Your task to perform on an android device: What's the news in Trinidad and Tobago? Image 0: 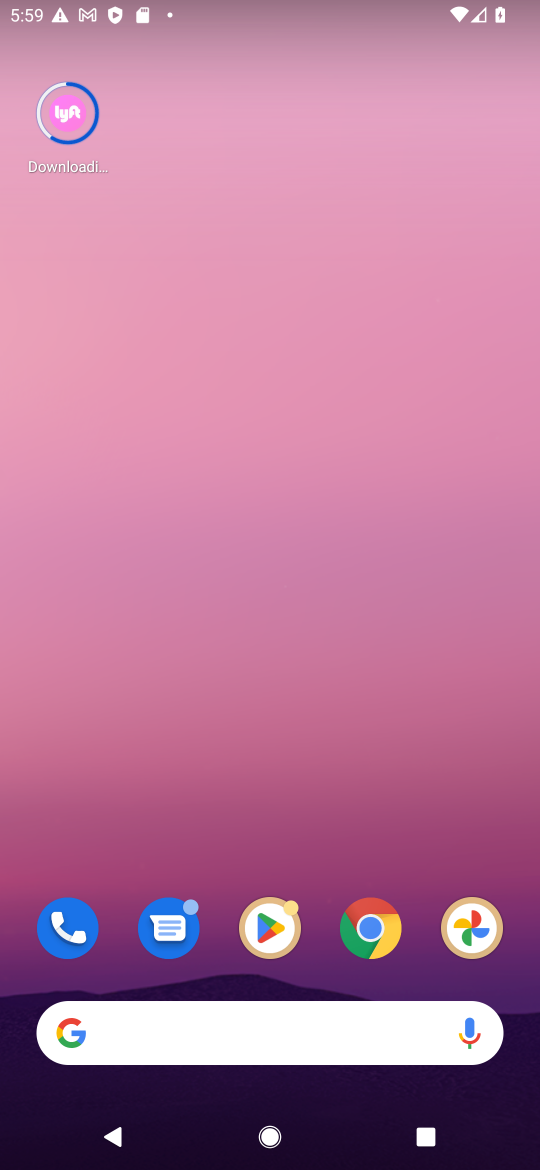
Step 0: drag from (344, 989) to (347, 326)
Your task to perform on an android device: What's the news in Trinidad and Tobago? Image 1: 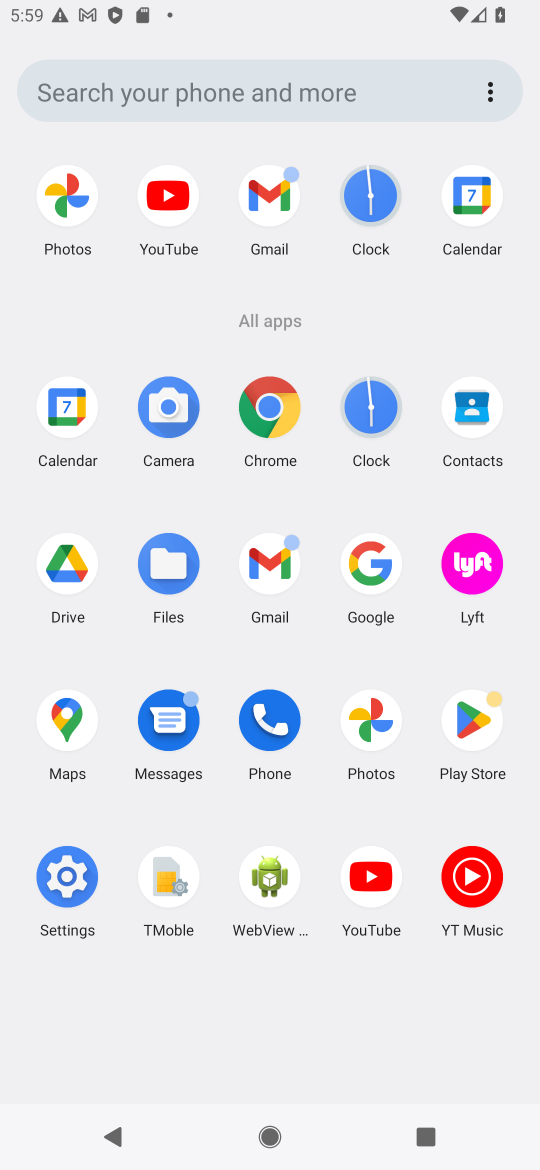
Step 1: click (471, 724)
Your task to perform on an android device: What's the news in Trinidad and Tobago? Image 2: 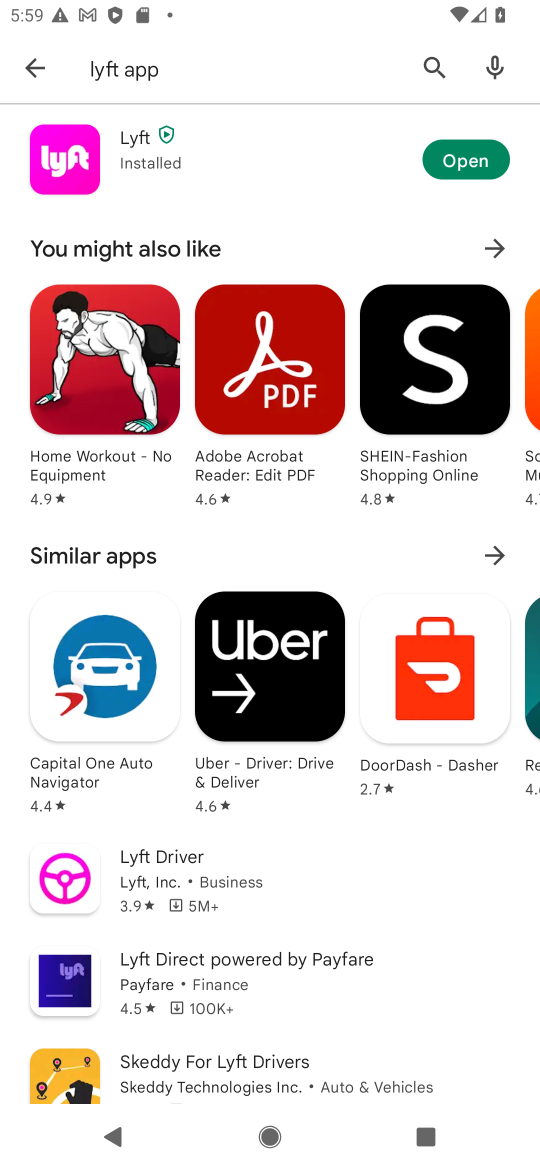
Step 2: click (26, 70)
Your task to perform on an android device: What's the news in Trinidad and Tobago? Image 3: 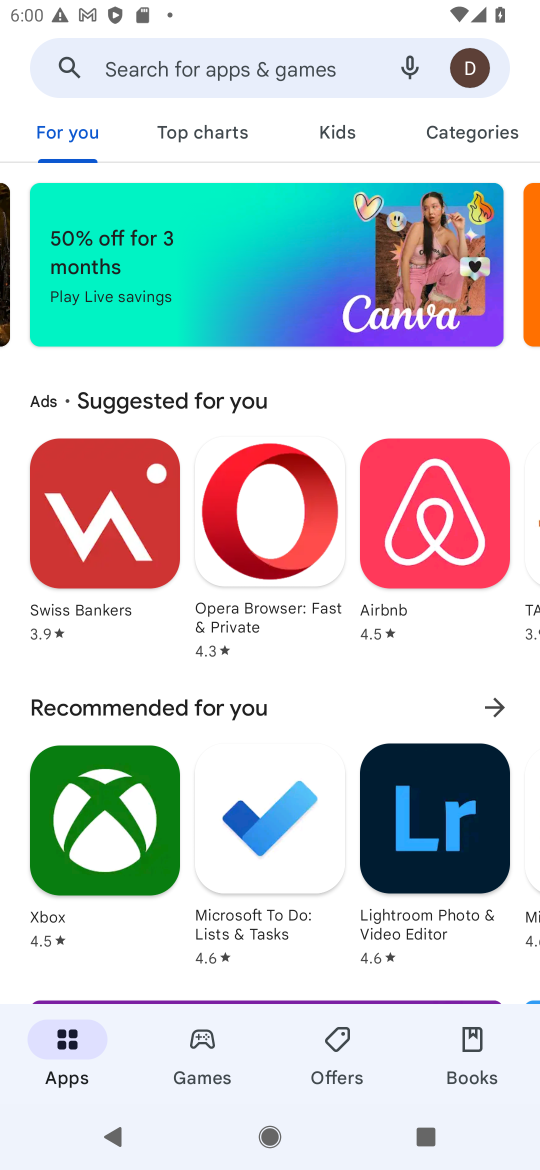
Step 3: click (227, 72)
Your task to perform on an android device: What's the news in Trinidad and Tobago? Image 4: 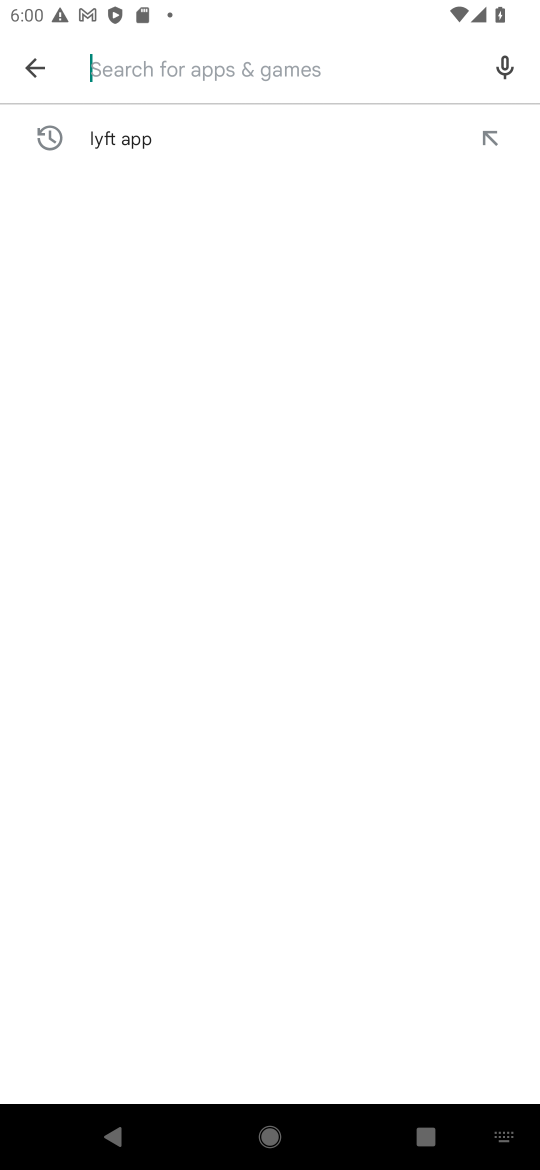
Step 4: press home button
Your task to perform on an android device: What's the news in Trinidad and Tobago? Image 5: 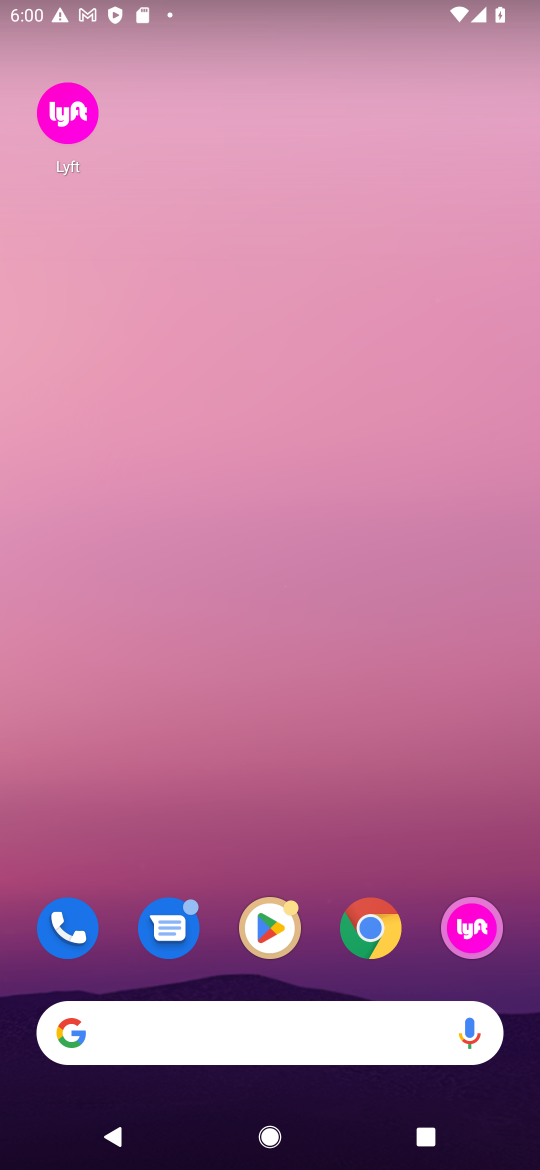
Step 5: drag from (281, 984) to (277, 591)
Your task to perform on an android device: What's the news in Trinidad and Tobago? Image 6: 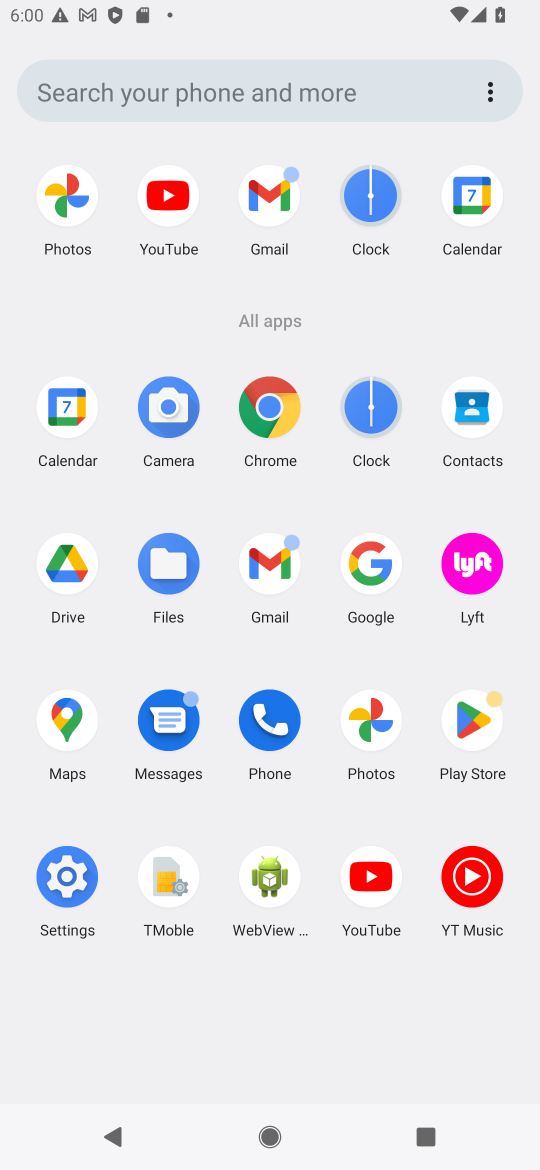
Step 6: click (372, 582)
Your task to perform on an android device: What's the news in Trinidad and Tobago? Image 7: 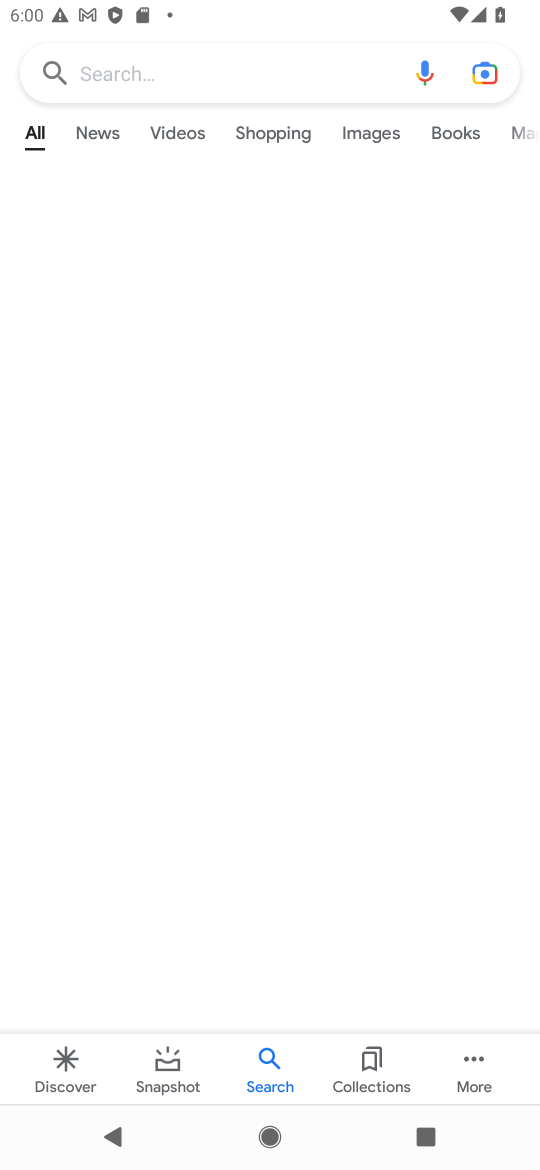
Step 7: click (181, 83)
Your task to perform on an android device: What's the news in Trinidad and Tobago? Image 8: 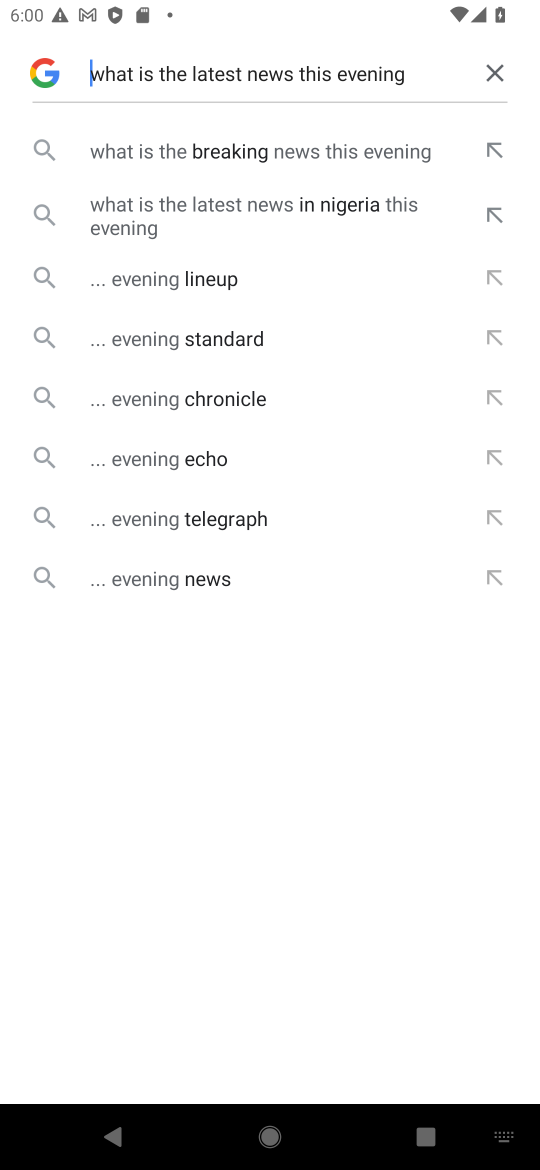
Step 8: click (484, 77)
Your task to perform on an android device: What's the news in Trinidad and Tobago? Image 9: 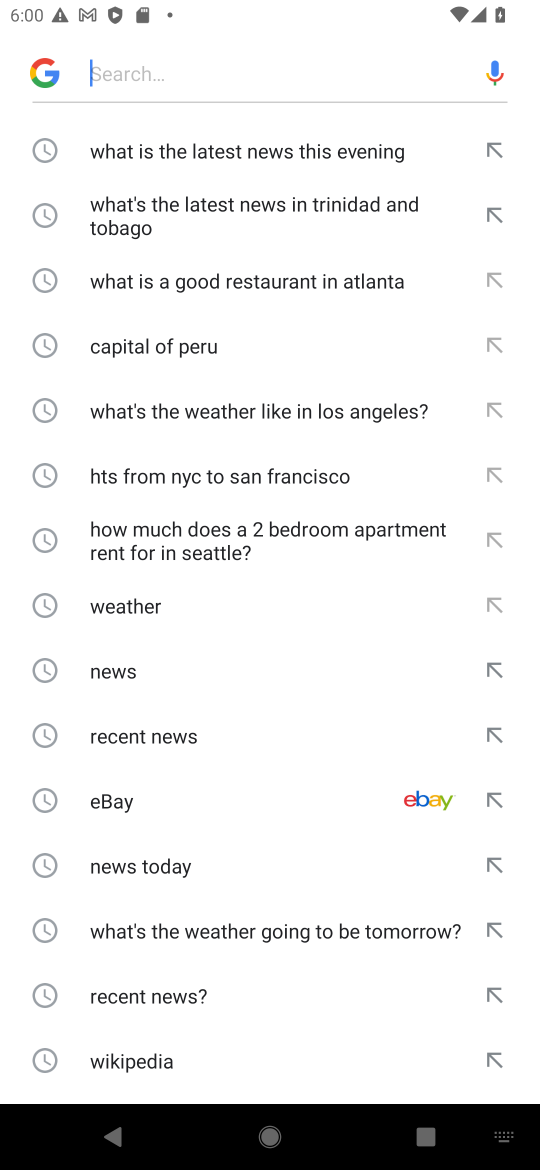
Step 9: type "What's the news in Trinidad and Tobago?"
Your task to perform on an android device: What's the news in Trinidad and Tobago? Image 10: 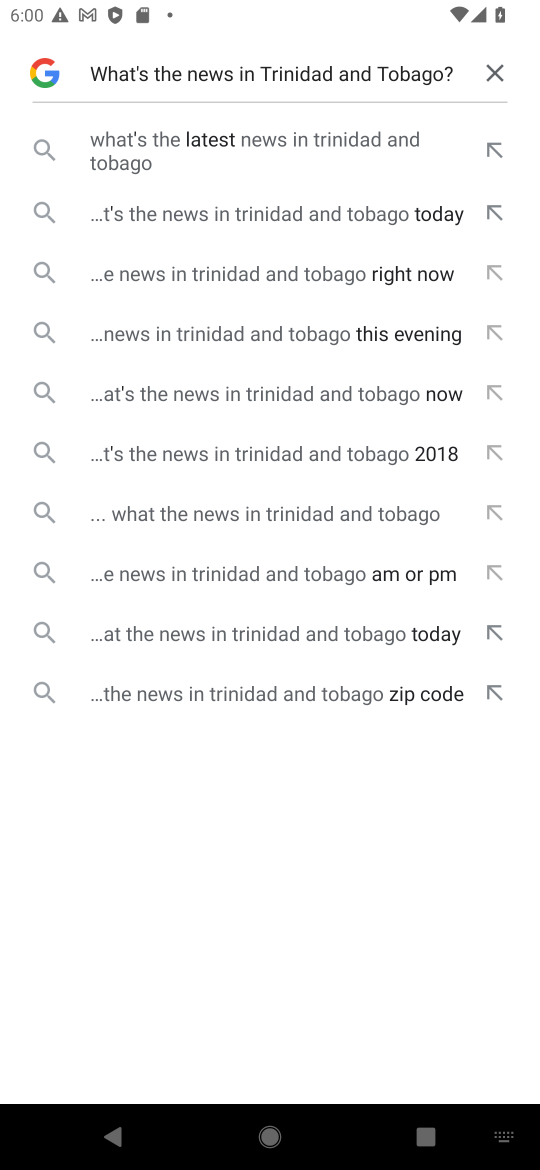
Step 10: click (344, 168)
Your task to perform on an android device: What's the news in Trinidad and Tobago? Image 11: 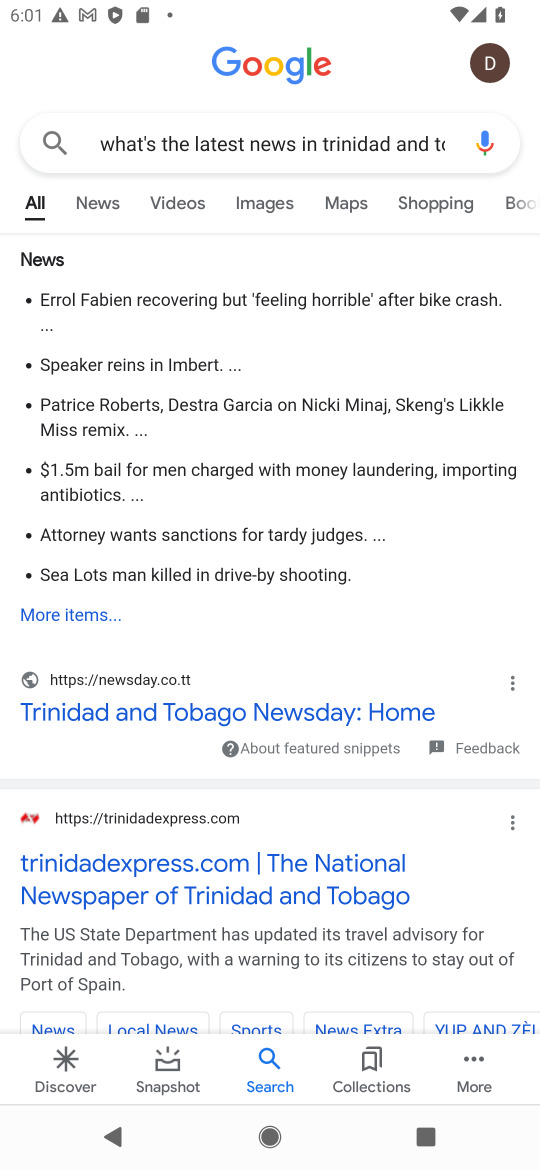
Step 11: task complete